Your task to perform on an android device: open a new tab in the chrome app Image 0: 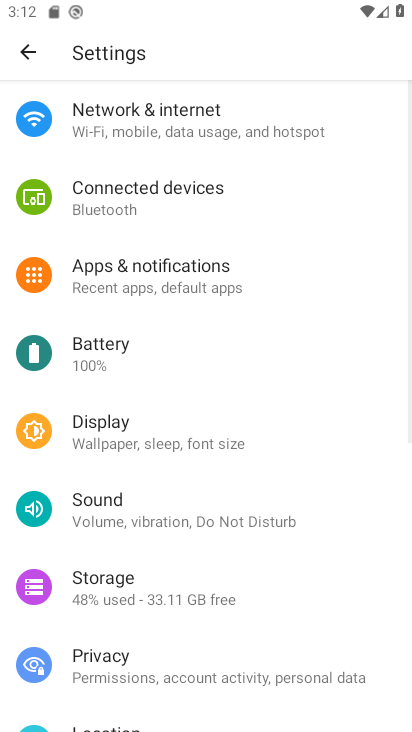
Step 0: press home button
Your task to perform on an android device: open a new tab in the chrome app Image 1: 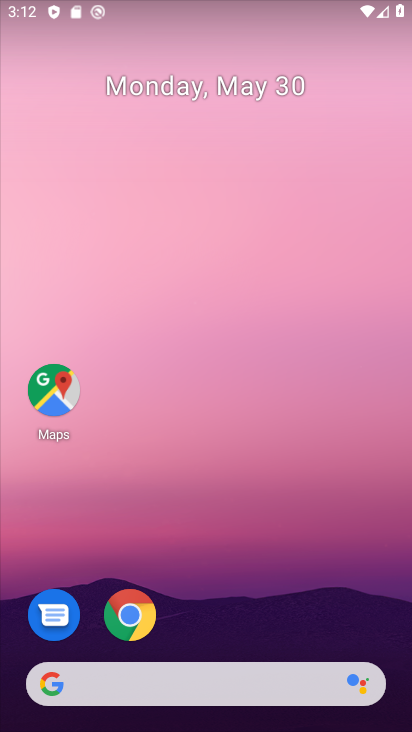
Step 1: click (146, 614)
Your task to perform on an android device: open a new tab in the chrome app Image 2: 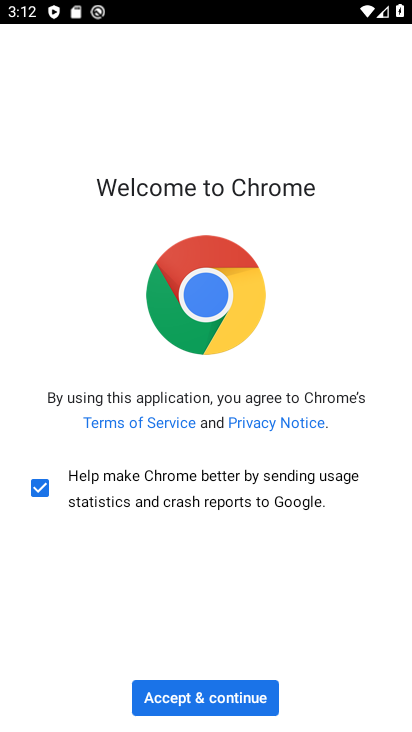
Step 2: click (205, 688)
Your task to perform on an android device: open a new tab in the chrome app Image 3: 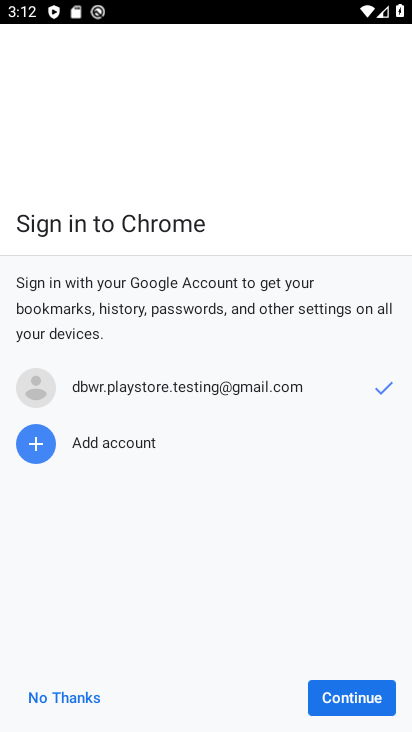
Step 3: click (359, 688)
Your task to perform on an android device: open a new tab in the chrome app Image 4: 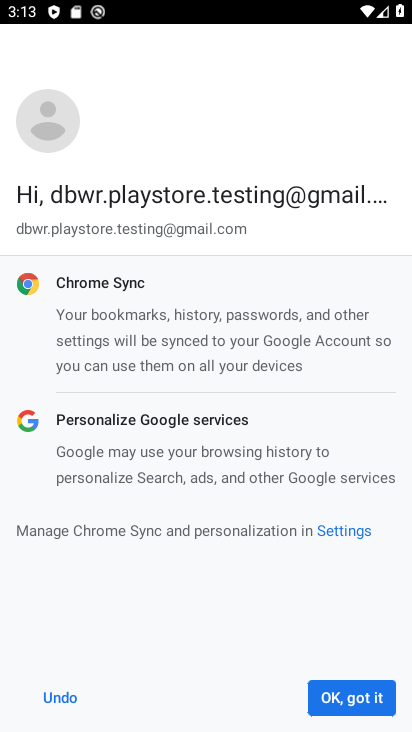
Step 4: click (365, 697)
Your task to perform on an android device: open a new tab in the chrome app Image 5: 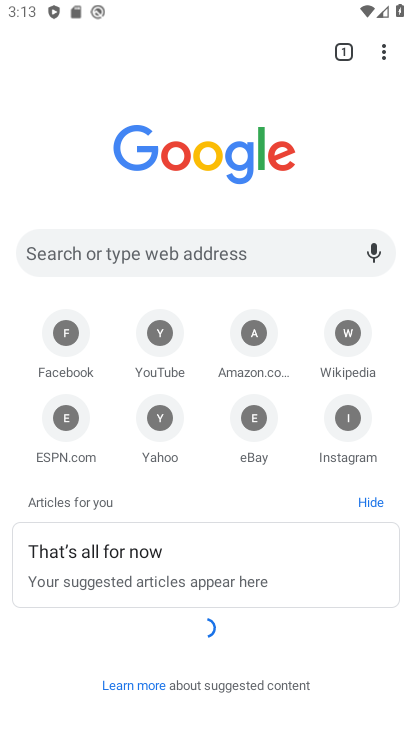
Step 5: click (382, 58)
Your task to perform on an android device: open a new tab in the chrome app Image 6: 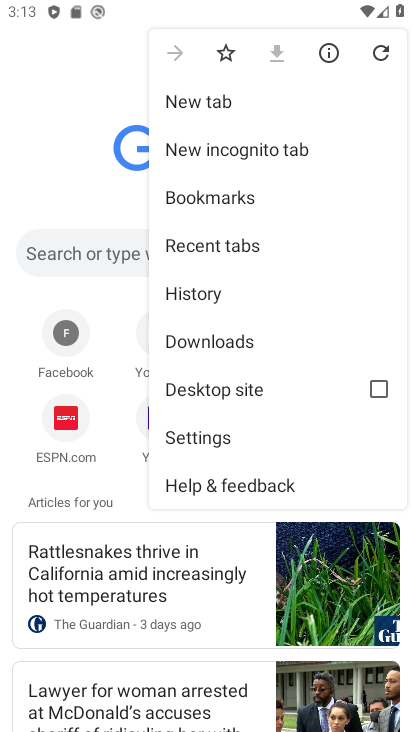
Step 6: click (287, 101)
Your task to perform on an android device: open a new tab in the chrome app Image 7: 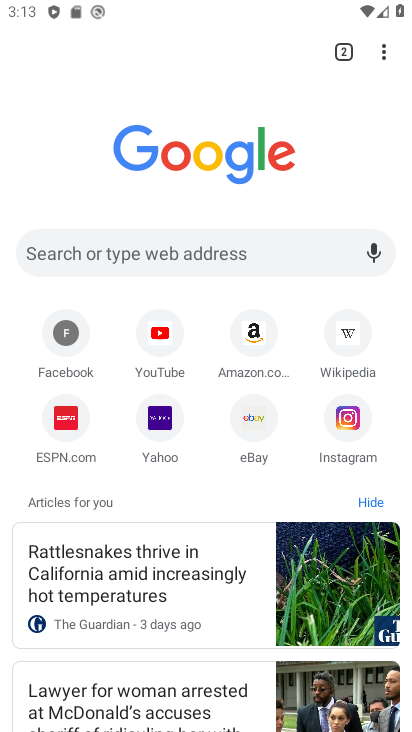
Step 7: task complete